Your task to perform on an android device: Open eBay Image 0: 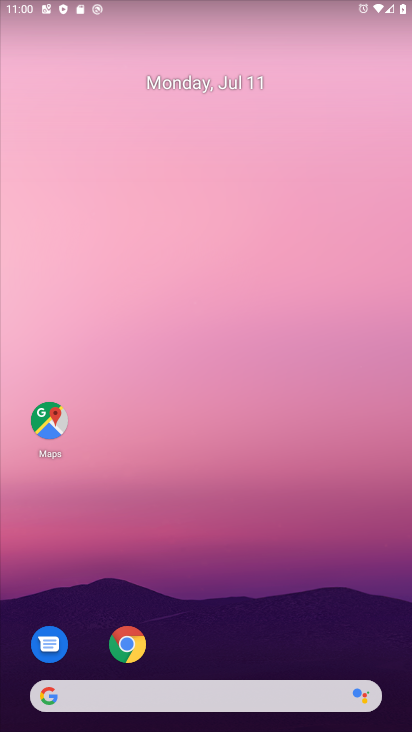
Step 0: press home button
Your task to perform on an android device: Open eBay Image 1: 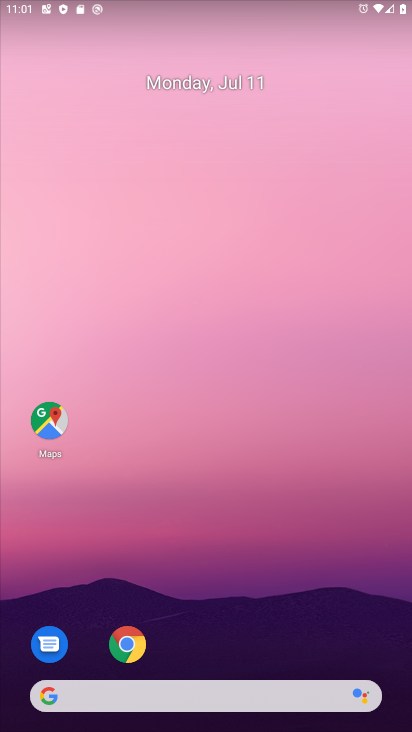
Step 1: click (125, 638)
Your task to perform on an android device: Open eBay Image 2: 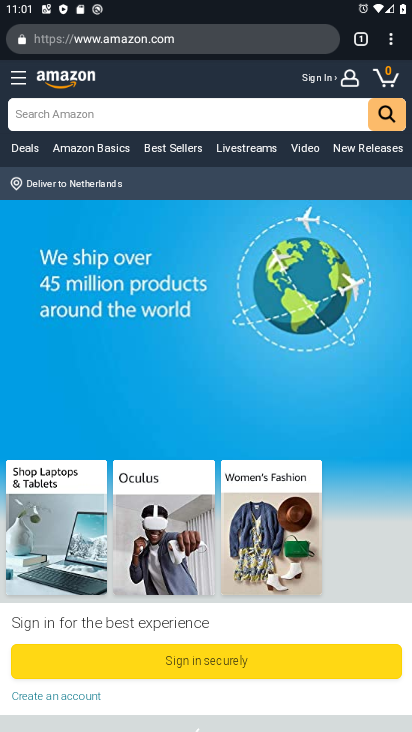
Step 2: click (358, 35)
Your task to perform on an android device: Open eBay Image 3: 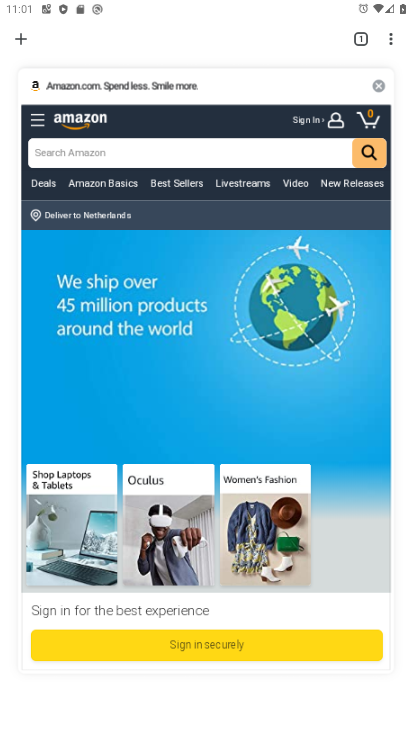
Step 3: click (20, 36)
Your task to perform on an android device: Open eBay Image 4: 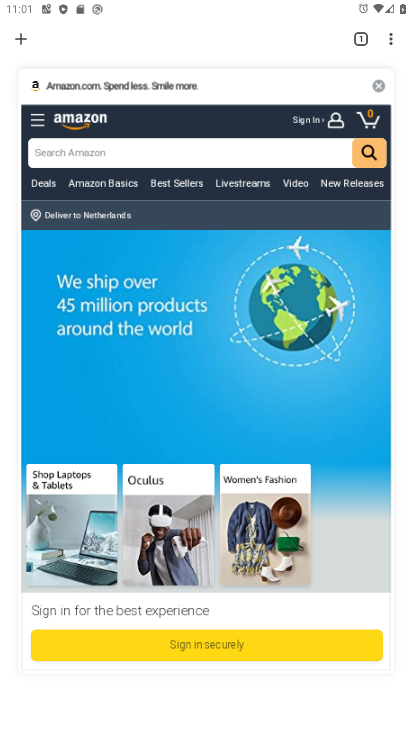
Step 4: click (22, 38)
Your task to perform on an android device: Open eBay Image 5: 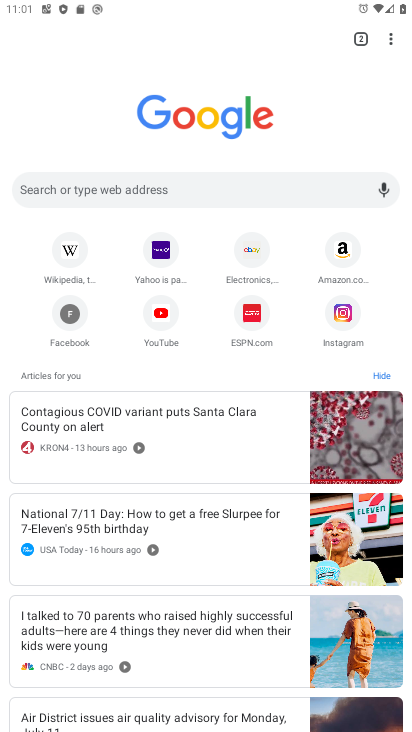
Step 5: click (246, 247)
Your task to perform on an android device: Open eBay Image 6: 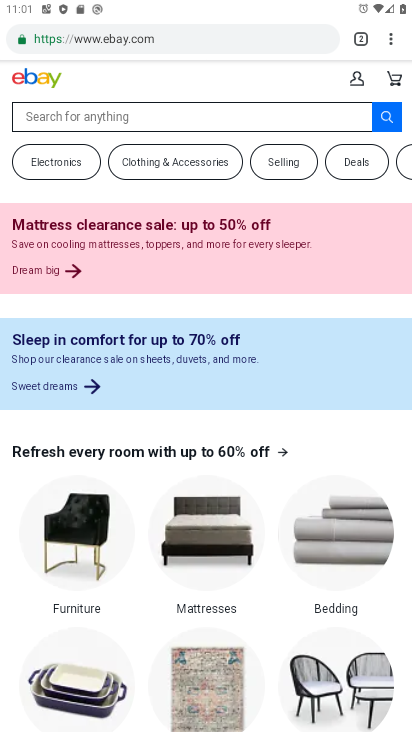
Step 6: task complete